Your task to perform on an android device: change alarm snooze length Image 0: 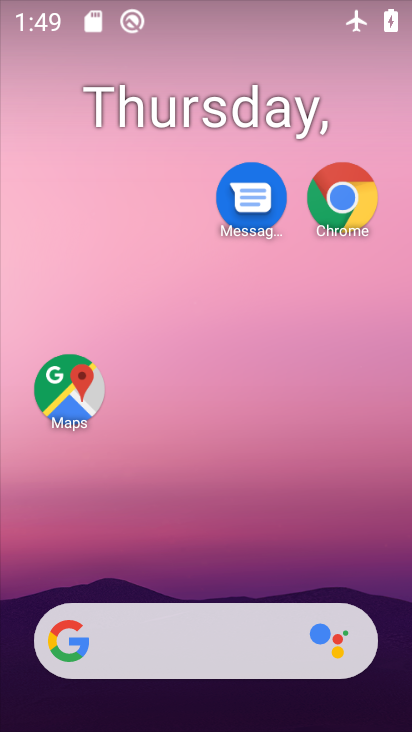
Step 0: drag from (201, 578) to (181, 6)
Your task to perform on an android device: change alarm snooze length Image 1: 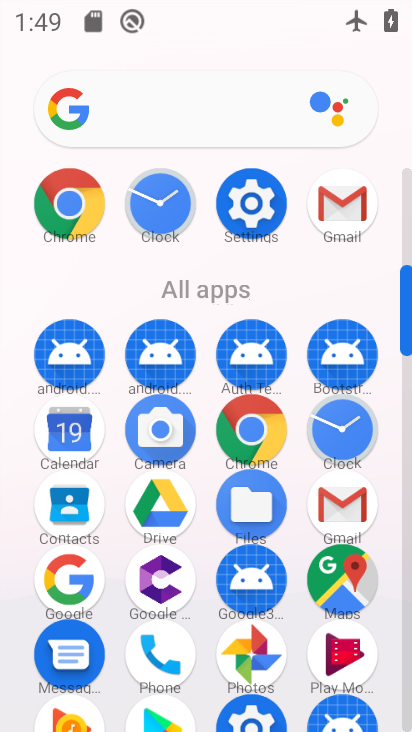
Step 1: click (189, 332)
Your task to perform on an android device: change alarm snooze length Image 2: 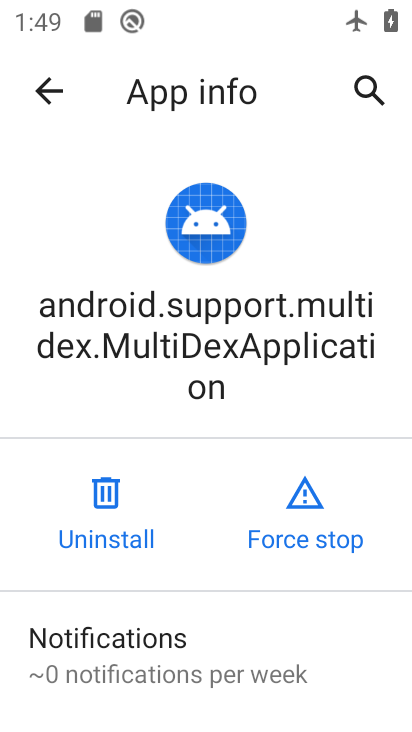
Step 2: click (41, 92)
Your task to perform on an android device: change alarm snooze length Image 3: 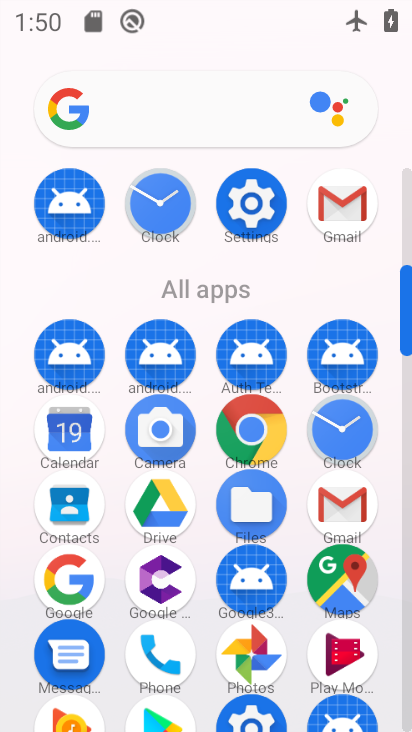
Step 3: click (248, 211)
Your task to perform on an android device: change alarm snooze length Image 4: 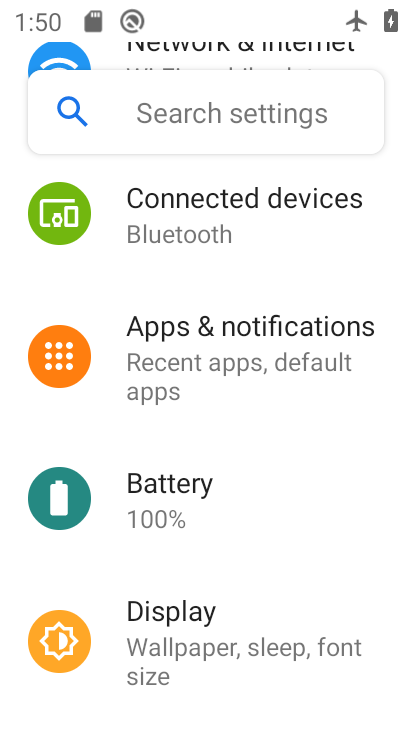
Step 4: press back button
Your task to perform on an android device: change alarm snooze length Image 5: 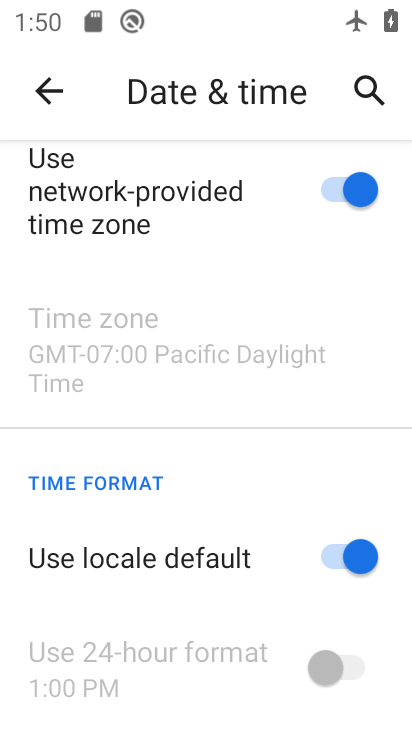
Step 5: press back button
Your task to perform on an android device: change alarm snooze length Image 6: 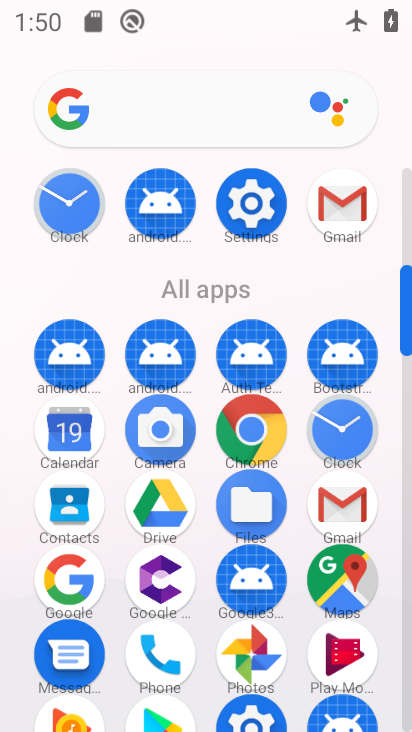
Step 6: click (338, 431)
Your task to perform on an android device: change alarm snooze length Image 7: 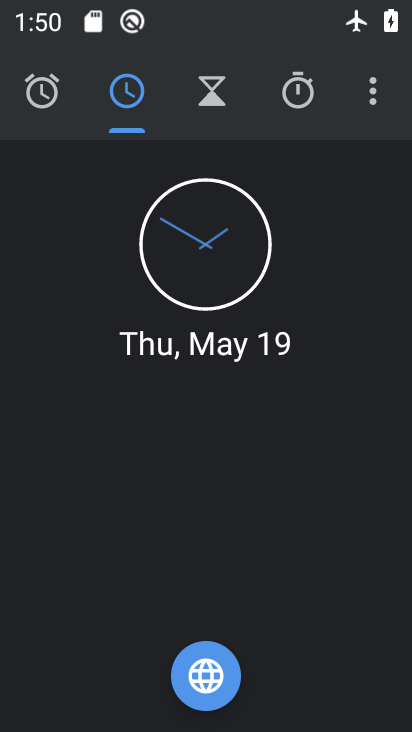
Step 7: click (374, 96)
Your task to perform on an android device: change alarm snooze length Image 8: 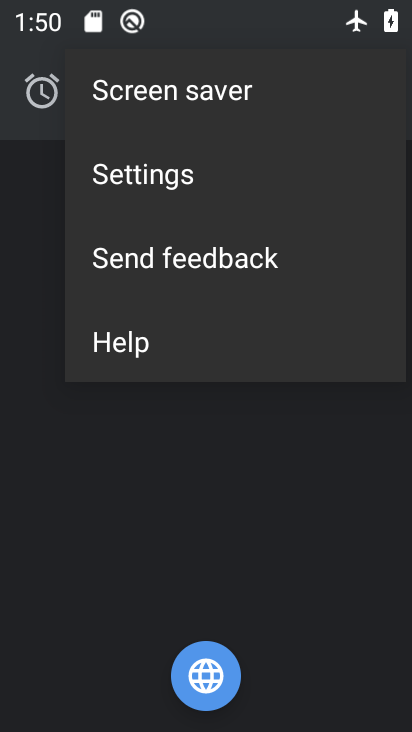
Step 8: click (374, 90)
Your task to perform on an android device: change alarm snooze length Image 9: 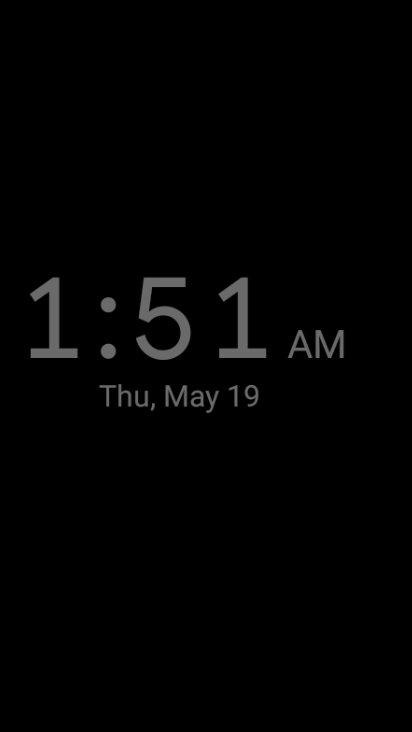
Step 9: press back button
Your task to perform on an android device: change alarm snooze length Image 10: 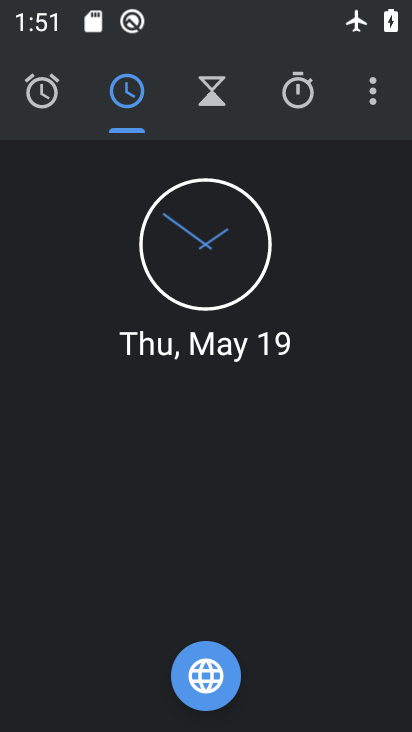
Step 10: click (370, 97)
Your task to perform on an android device: change alarm snooze length Image 11: 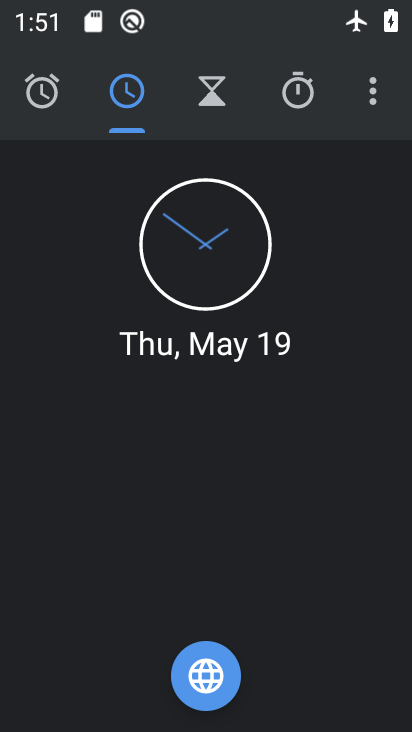
Step 11: click (368, 93)
Your task to perform on an android device: change alarm snooze length Image 12: 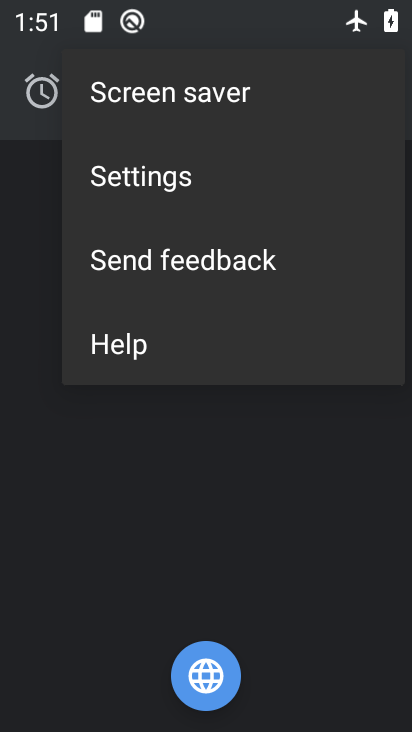
Step 12: click (176, 188)
Your task to perform on an android device: change alarm snooze length Image 13: 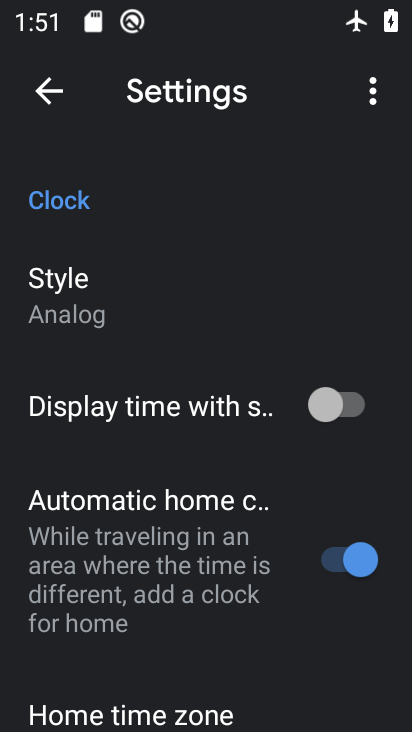
Step 13: drag from (167, 595) to (239, 298)
Your task to perform on an android device: change alarm snooze length Image 14: 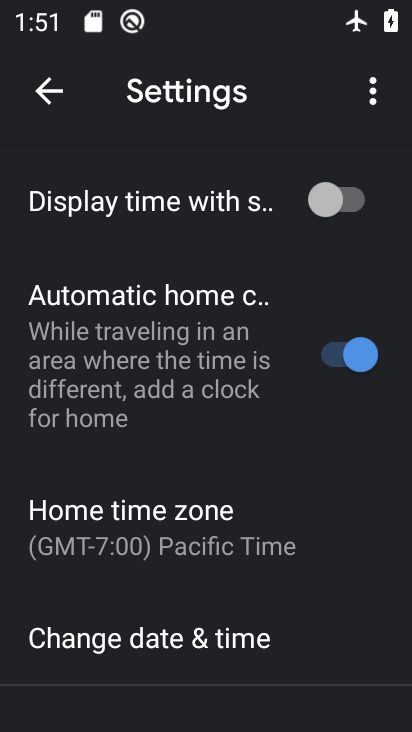
Step 14: drag from (178, 452) to (217, 289)
Your task to perform on an android device: change alarm snooze length Image 15: 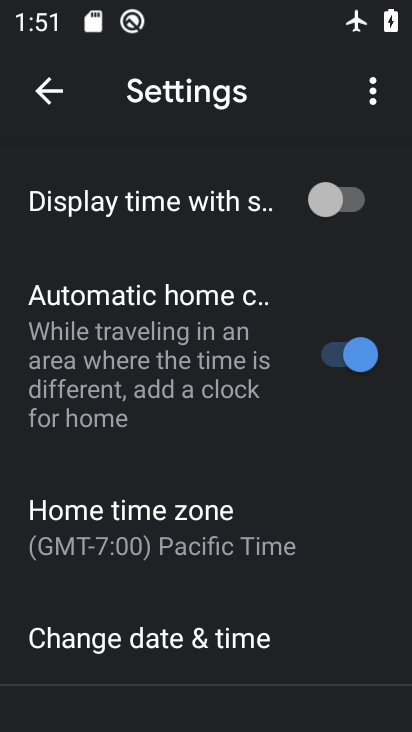
Step 15: drag from (163, 620) to (207, 308)
Your task to perform on an android device: change alarm snooze length Image 16: 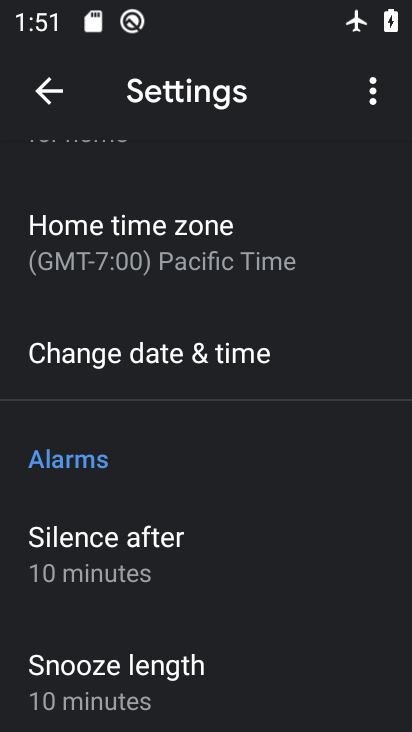
Step 16: drag from (207, 423) to (243, 278)
Your task to perform on an android device: change alarm snooze length Image 17: 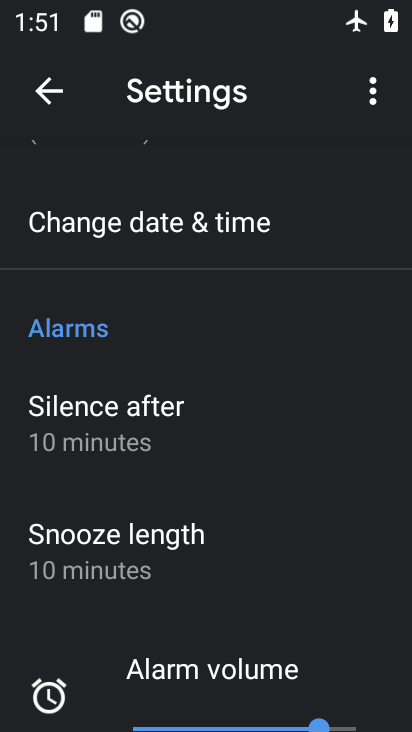
Step 17: click (108, 693)
Your task to perform on an android device: change alarm snooze length Image 18: 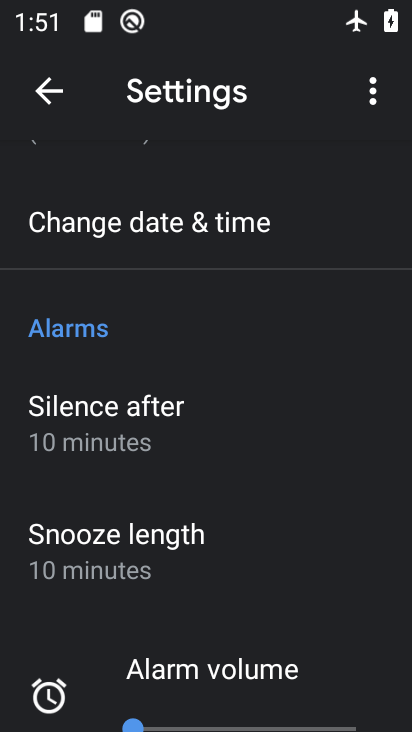
Step 18: click (112, 580)
Your task to perform on an android device: change alarm snooze length Image 19: 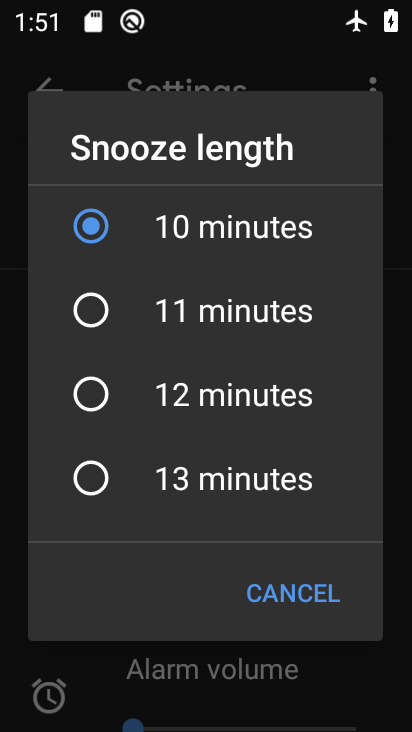
Step 19: click (98, 485)
Your task to perform on an android device: change alarm snooze length Image 20: 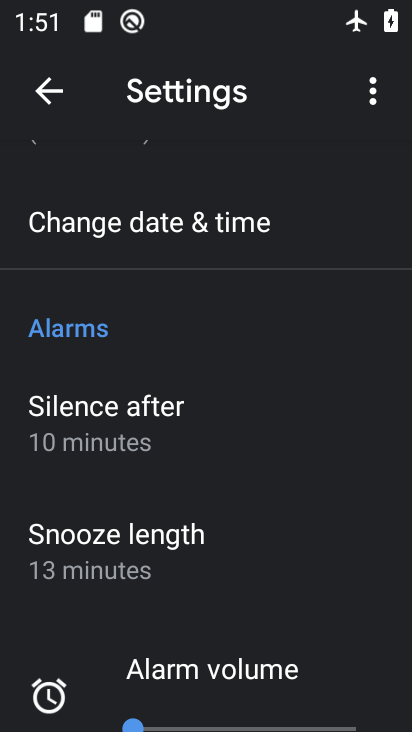
Step 20: task complete